Your task to perform on an android device: clear history in the chrome app Image 0: 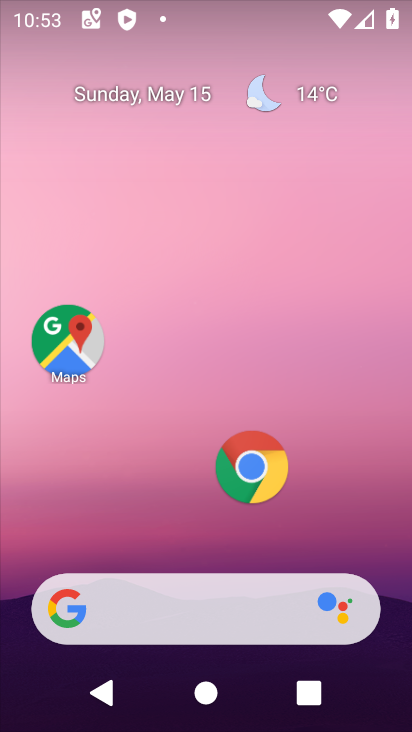
Step 0: drag from (222, 522) to (225, 90)
Your task to perform on an android device: clear history in the chrome app Image 1: 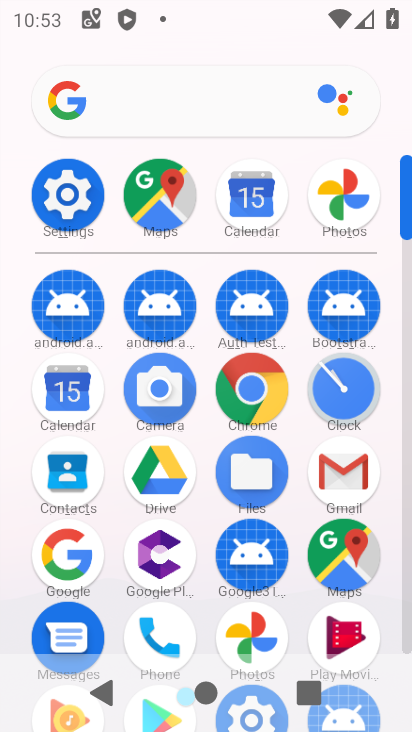
Step 1: click (261, 392)
Your task to perform on an android device: clear history in the chrome app Image 2: 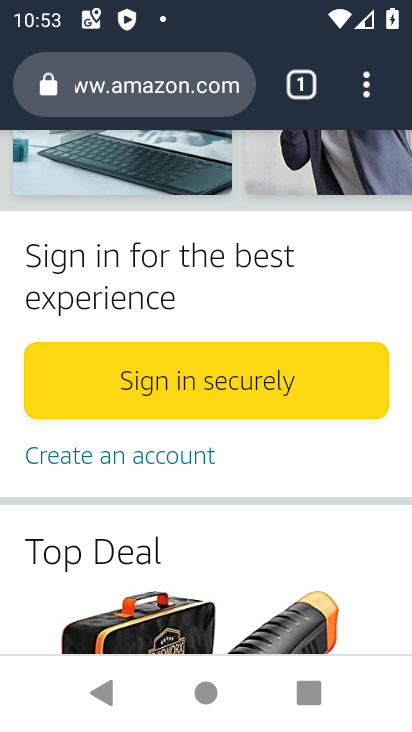
Step 2: click (365, 90)
Your task to perform on an android device: clear history in the chrome app Image 3: 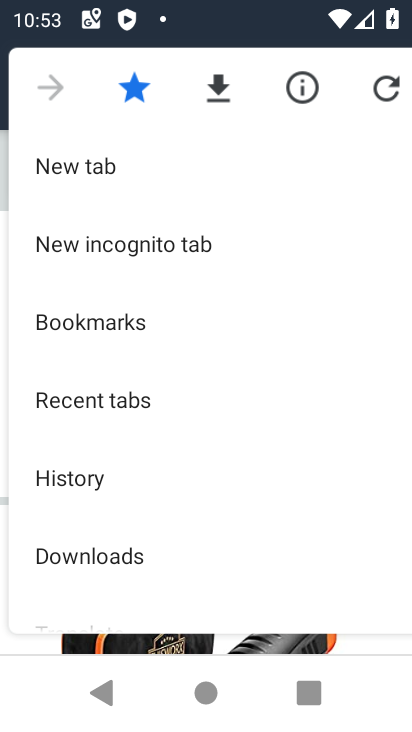
Step 3: click (132, 485)
Your task to perform on an android device: clear history in the chrome app Image 4: 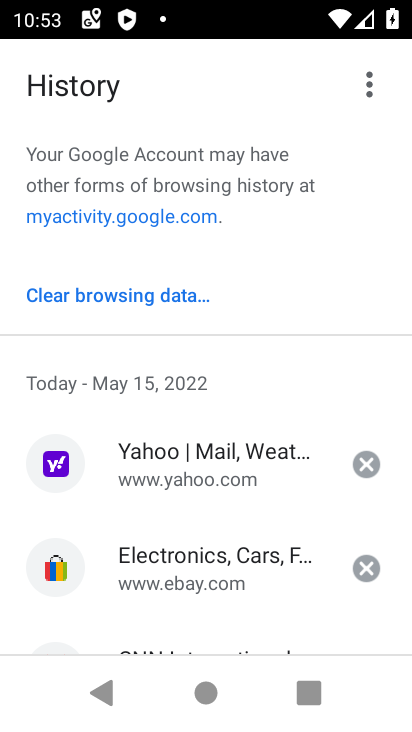
Step 4: click (104, 306)
Your task to perform on an android device: clear history in the chrome app Image 5: 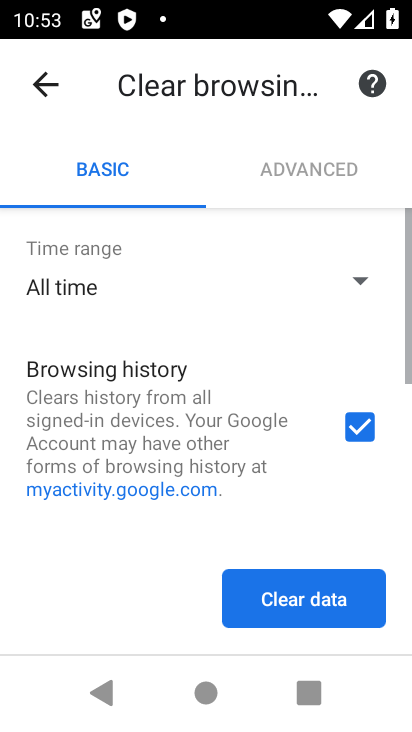
Step 5: click (319, 612)
Your task to perform on an android device: clear history in the chrome app Image 6: 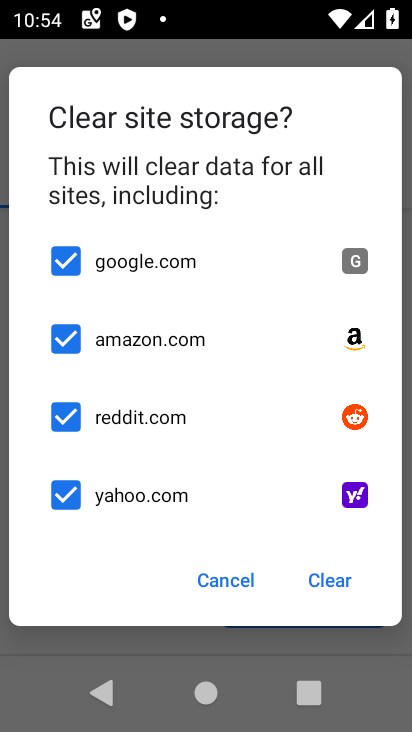
Step 6: click (354, 588)
Your task to perform on an android device: clear history in the chrome app Image 7: 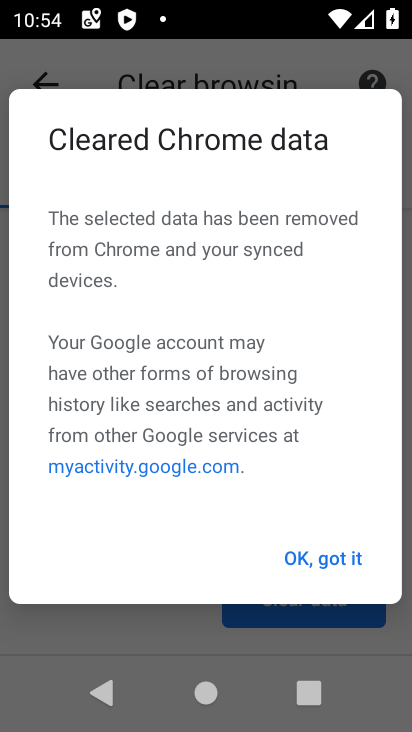
Step 7: click (331, 559)
Your task to perform on an android device: clear history in the chrome app Image 8: 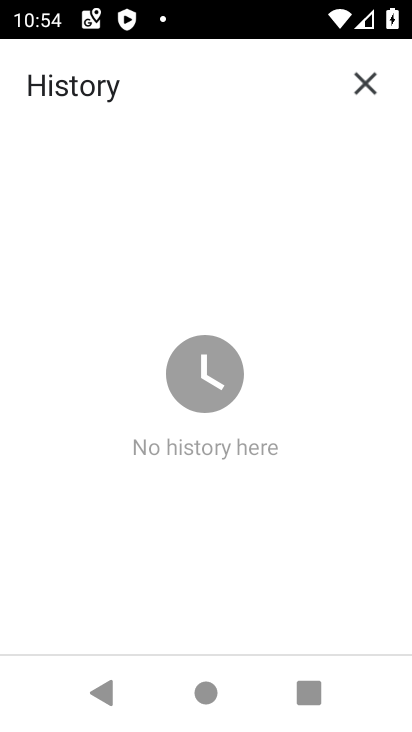
Step 8: task complete